Your task to perform on an android device: Open Youtube and go to the subscriptions tab Image 0: 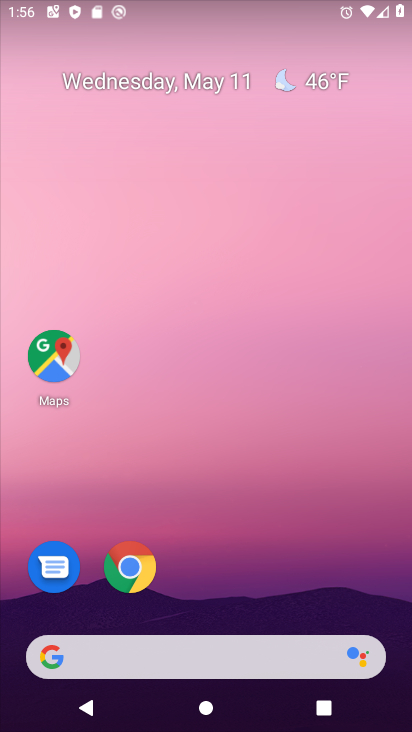
Step 0: drag from (211, 630) to (141, 61)
Your task to perform on an android device: Open Youtube and go to the subscriptions tab Image 1: 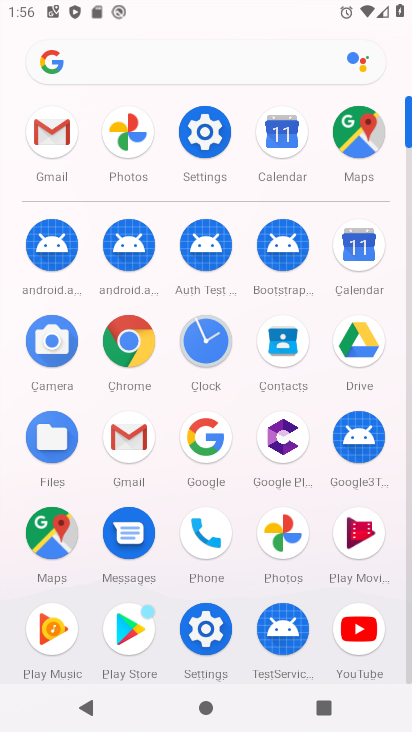
Step 1: click (337, 611)
Your task to perform on an android device: Open Youtube and go to the subscriptions tab Image 2: 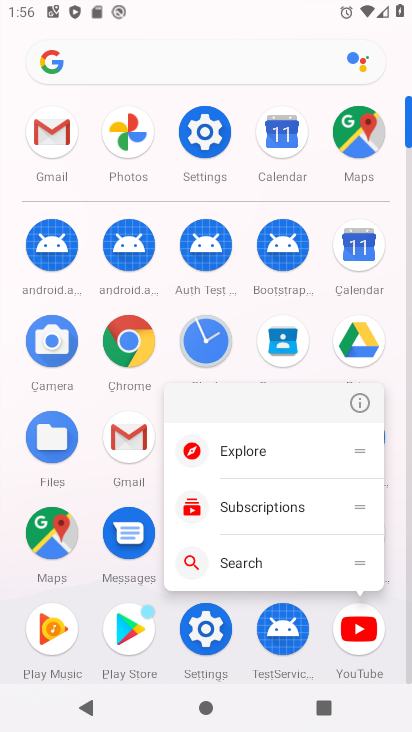
Step 2: click (354, 628)
Your task to perform on an android device: Open Youtube and go to the subscriptions tab Image 3: 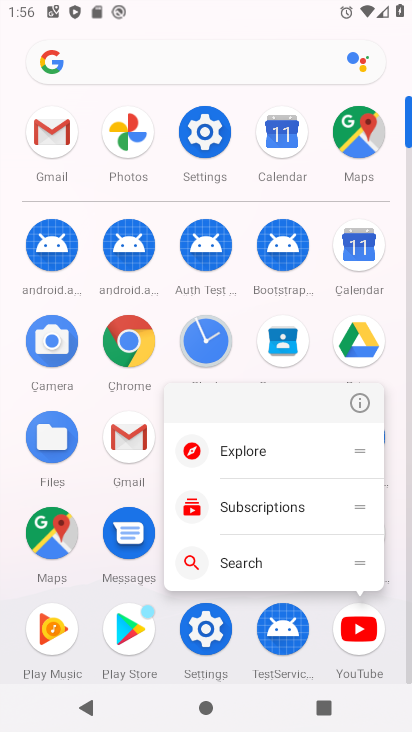
Step 3: click (364, 628)
Your task to perform on an android device: Open Youtube and go to the subscriptions tab Image 4: 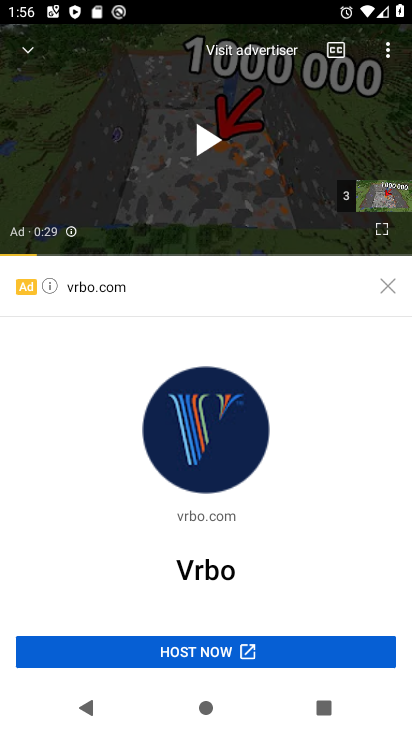
Step 4: click (32, 43)
Your task to perform on an android device: Open Youtube and go to the subscriptions tab Image 5: 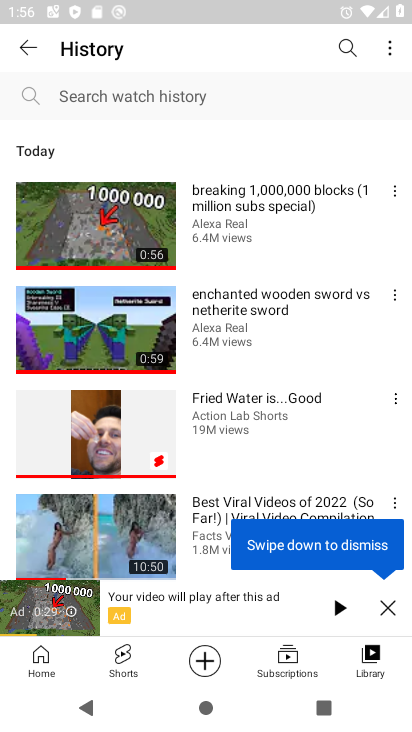
Step 5: click (258, 646)
Your task to perform on an android device: Open Youtube and go to the subscriptions tab Image 6: 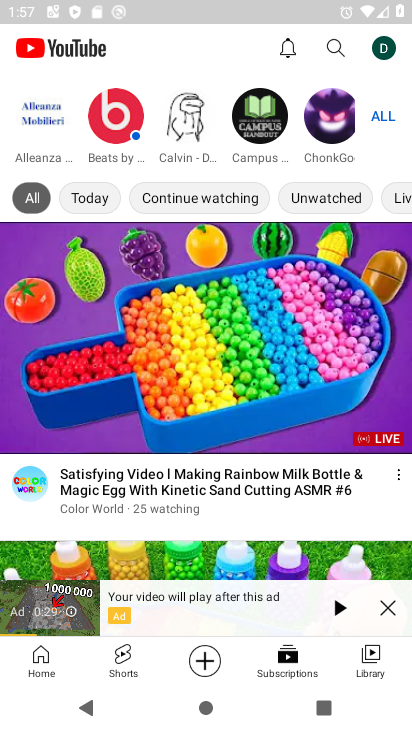
Step 6: task complete